Your task to perform on an android device: turn on improve location accuracy Image 0: 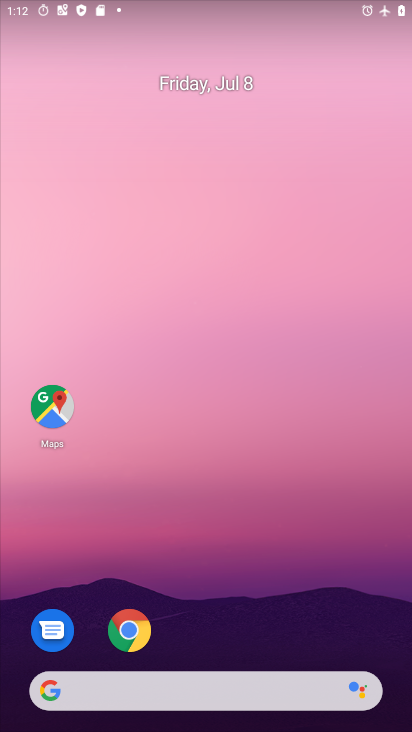
Step 0: drag from (212, 633) to (217, 176)
Your task to perform on an android device: turn on improve location accuracy Image 1: 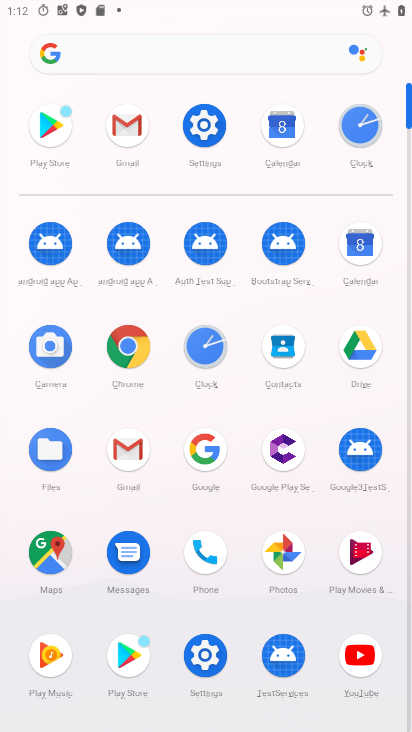
Step 1: click (197, 143)
Your task to perform on an android device: turn on improve location accuracy Image 2: 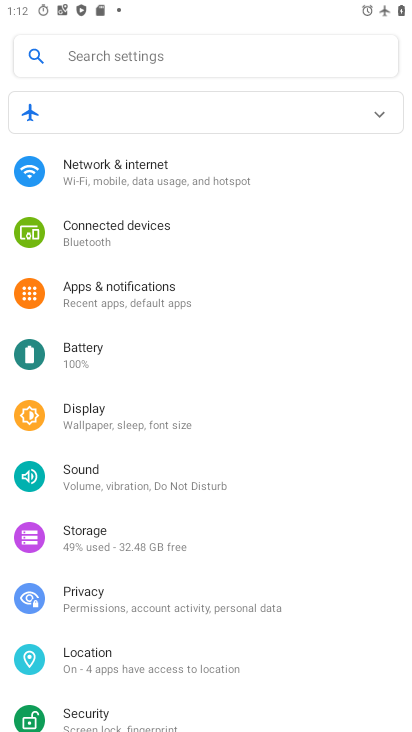
Step 2: click (103, 645)
Your task to perform on an android device: turn on improve location accuracy Image 3: 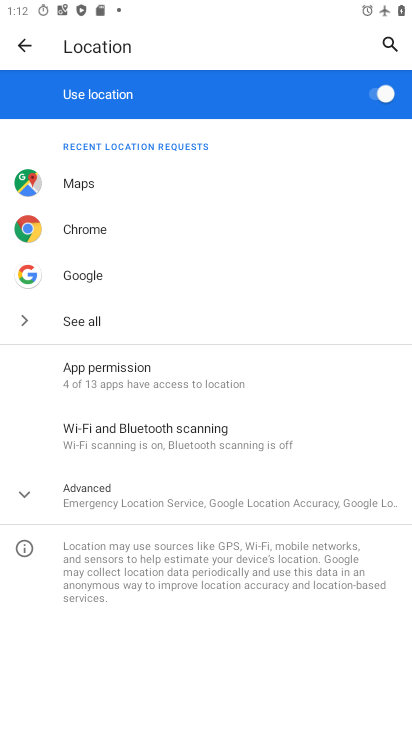
Step 3: click (163, 487)
Your task to perform on an android device: turn on improve location accuracy Image 4: 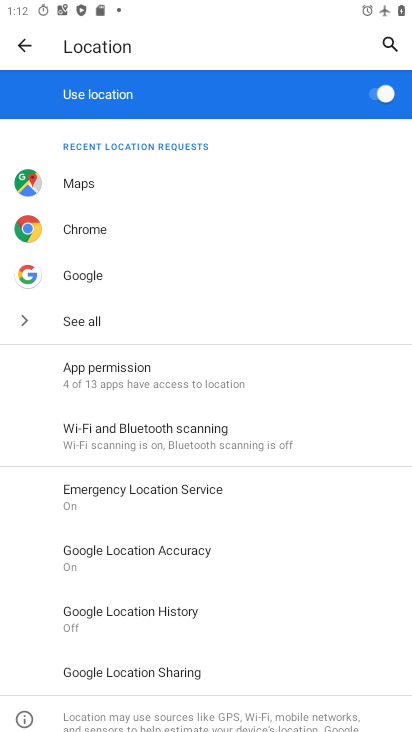
Step 4: click (139, 542)
Your task to perform on an android device: turn on improve location accuracy Image 5: 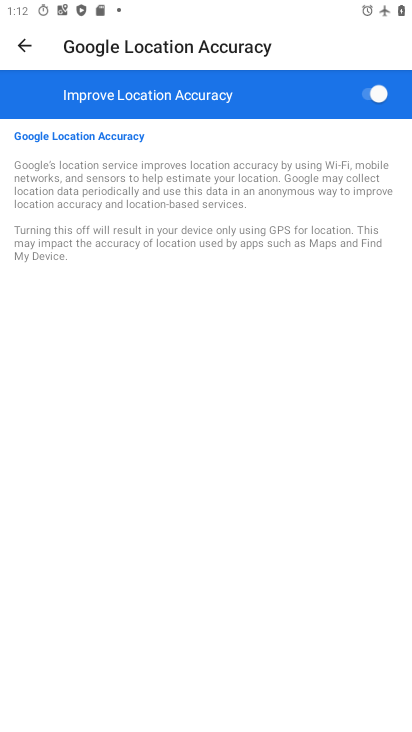
Step 5: task complete